Your task to perform on an android device: turn on translation in the chrome app Image 0: 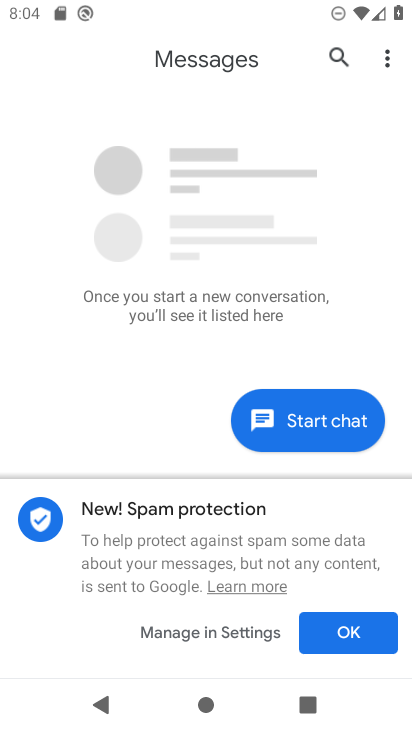
Step 0: press home button
Your task to perform on an android device: turn on translation in the chrome app Image 1: 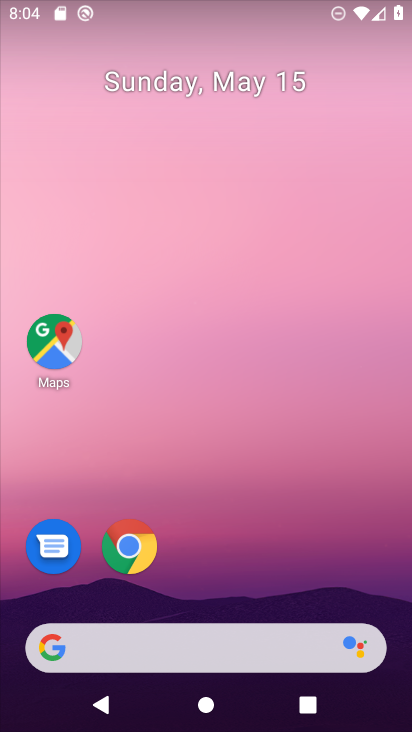
Step 1: click (140, 537)
Your task to perform on an android device: turn on translation in the chrome app Image 2: 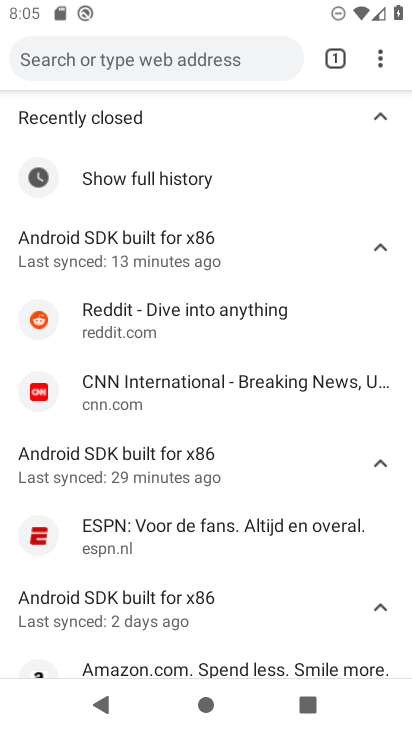
Step 2: click (384, 57)
Your task to perform on an android device: turn on translation in the chrome app Image 3: 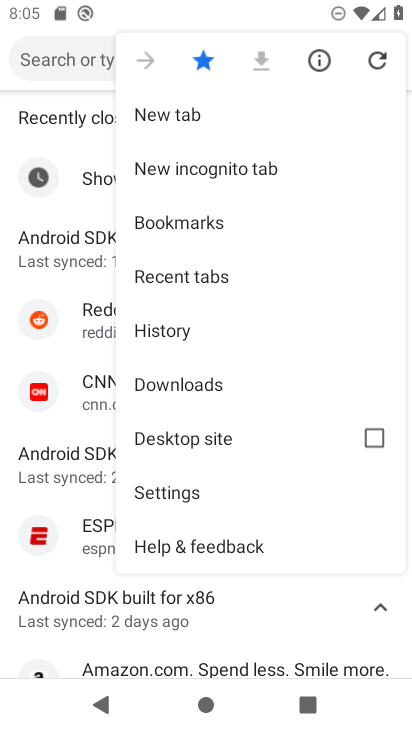
Step 3: click (214, 493)
Your task to perform on an android device: turn on translation in the chrome app Image 4: 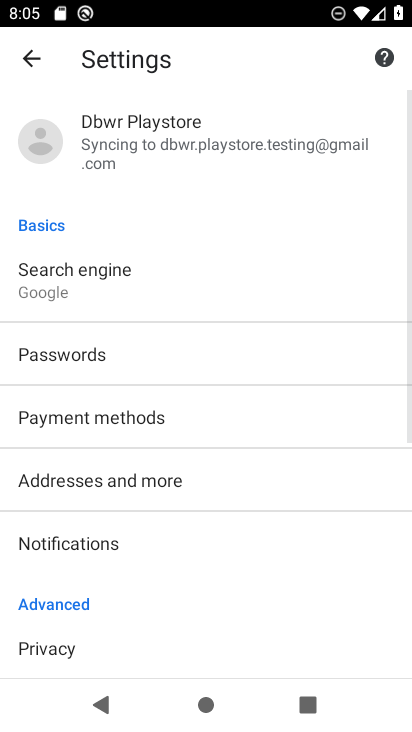
Step 4: drag from (200, 576) to (266, 153)
Your task to perform on an android device: turn on translation in the chrome app Image 5: 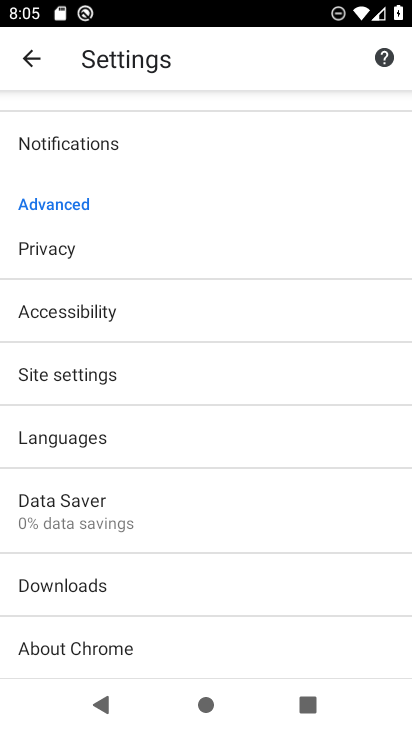
Step 5: click (177, 445)
Your task to perform on an android device: turn on translation in the chrome app Image 6: 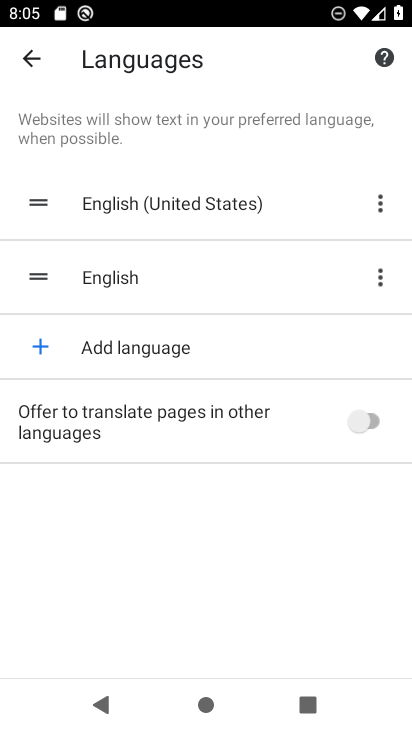
Step 6: click (361, 417)
Your task to perform on an android device: turn on translation in the chrome app Image 7: 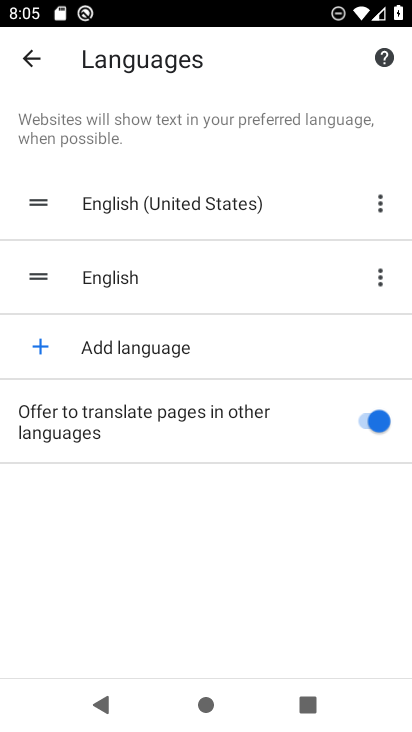
Step 7: task complete